Your task to perform on an android device: Open Google Maps Image 0: 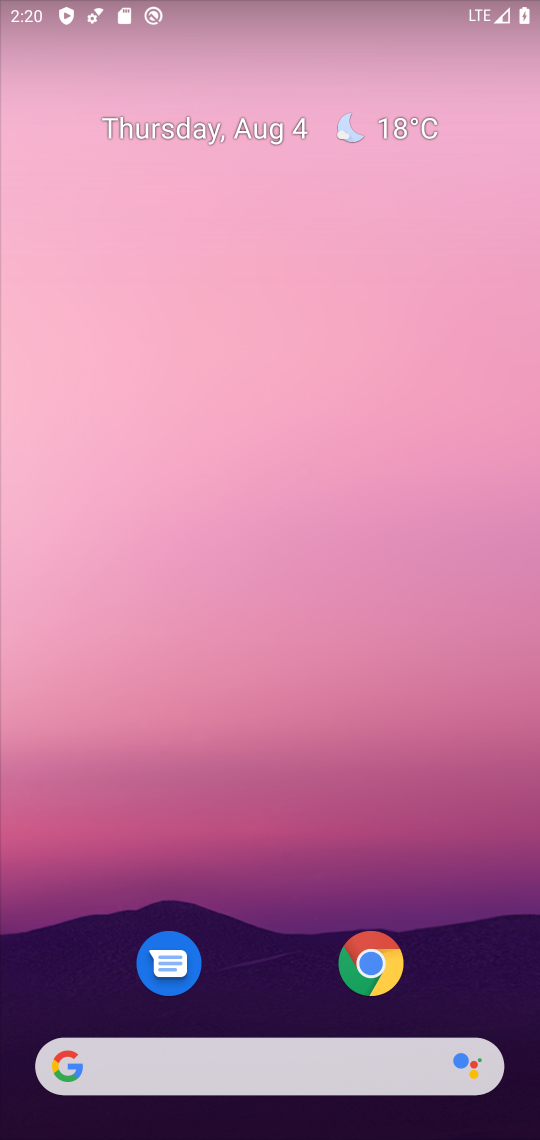
Step 0: drag from (263, 1078) to (181, 193)
Your task to perform on an android device: Open Google Maps Image 1: 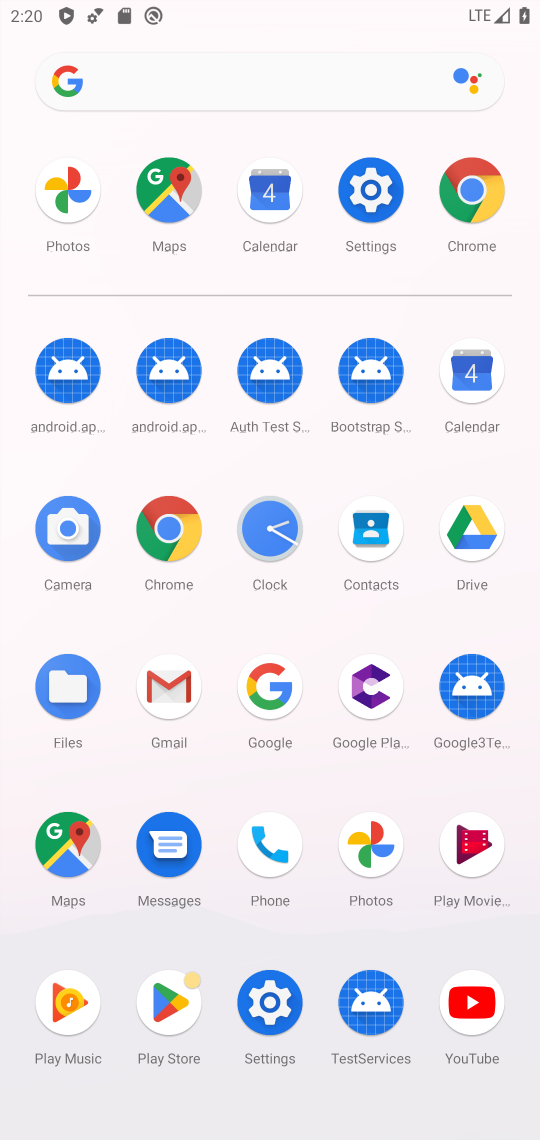
Step 1: click (82, 858)
Your task to perform on an android device: Open Google Maps Image 2: 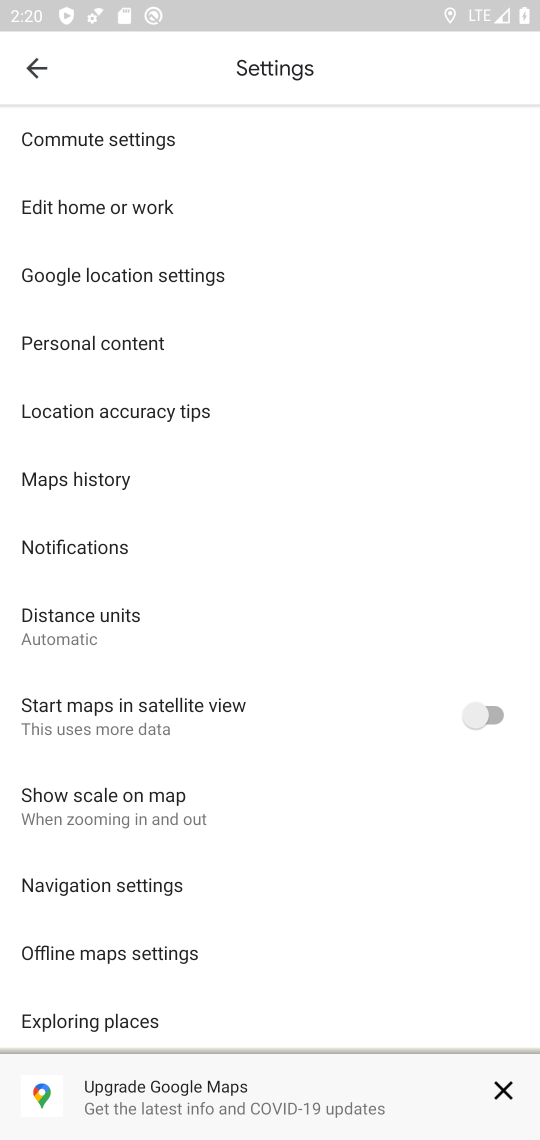
Step 2: task complete